Your task to perform on an android device: see creations saved in the google photos Image 0: 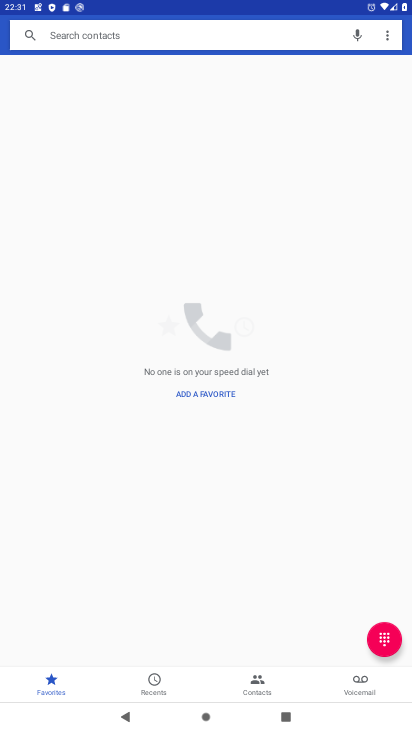
Step 0: press home button
Your task to perform on an android device: see creations saved in the google photos Image 1: 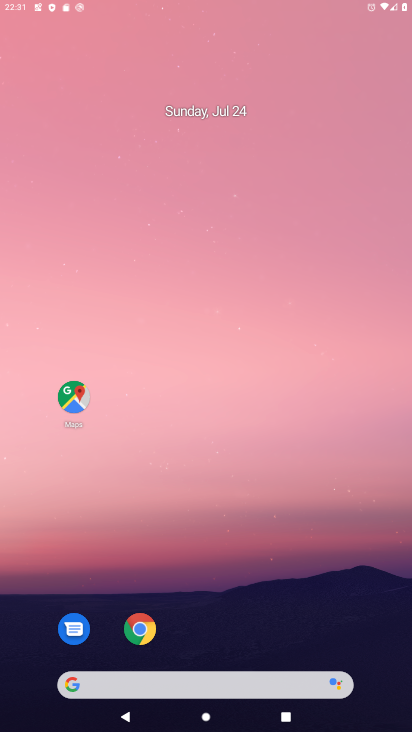
Step 1: drag from (244, 592) to (405, 94)
Your task to perform on an android device: see creations saved in the google photos Image 2: 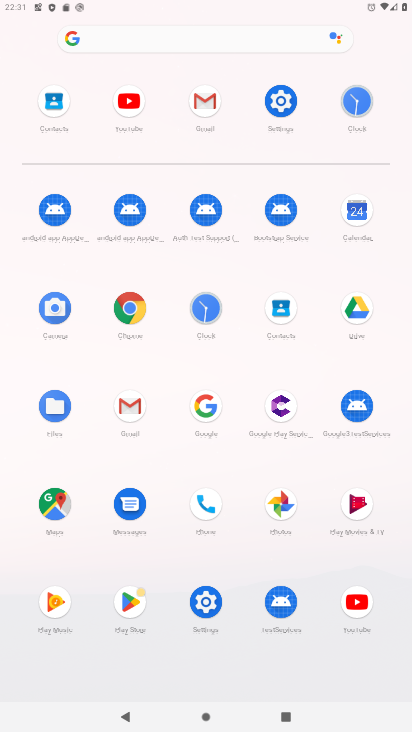
Step 2: click (281, 498)
Your task to perform on an android device: see creations saved in the google photos Image 3: 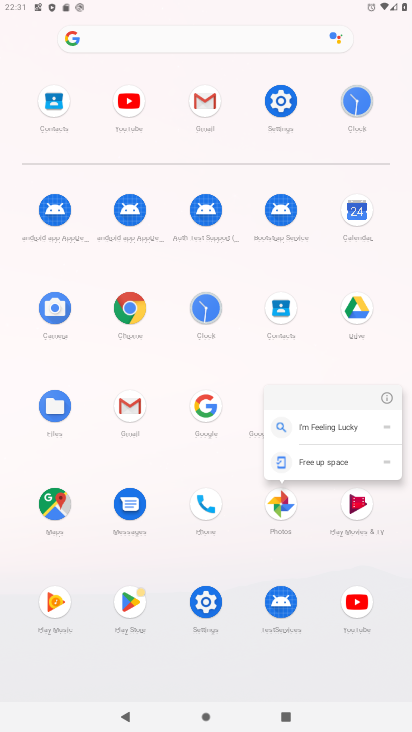
Step 3: click (388, 395)
Your task to perform on an android device: see creations saved in the google photos Image 4: 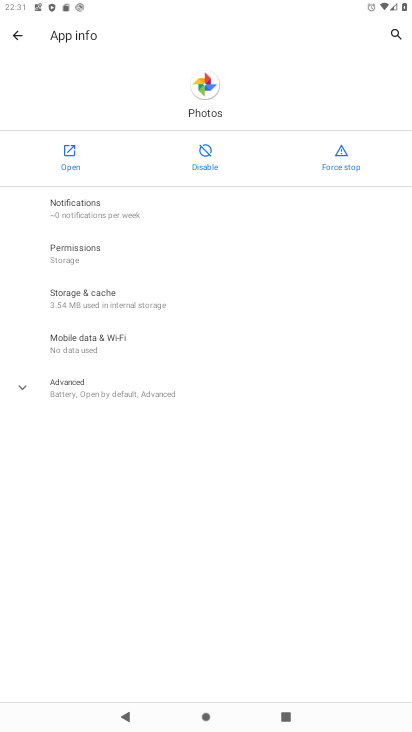
Step 4: click (71, 150)
Your task to perform on an android device: see creations saved in the google photos Image 5: 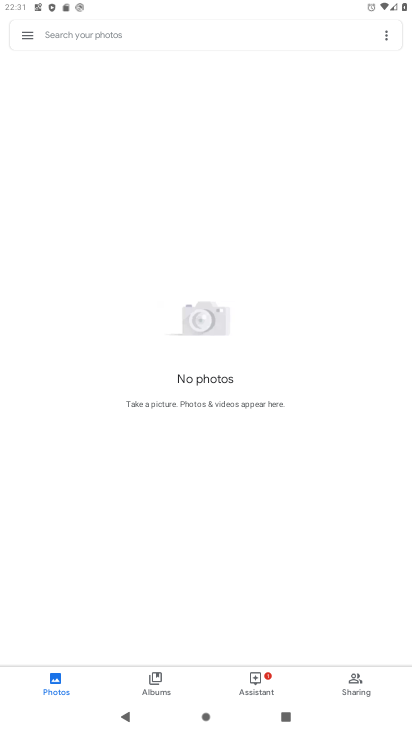
Step 5: click (151, 679)
Your task to perform on an android device: see creations saved in the google photos Image 6: 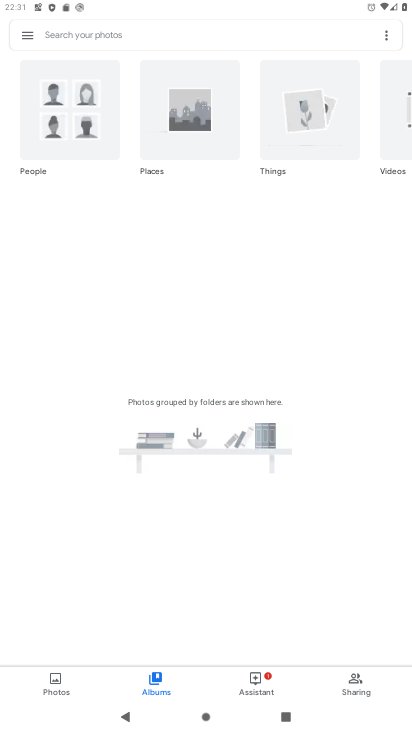
Step 6: click (121, 31)
Your task to perform on an android device: see creations saved in the google photos Image 7: 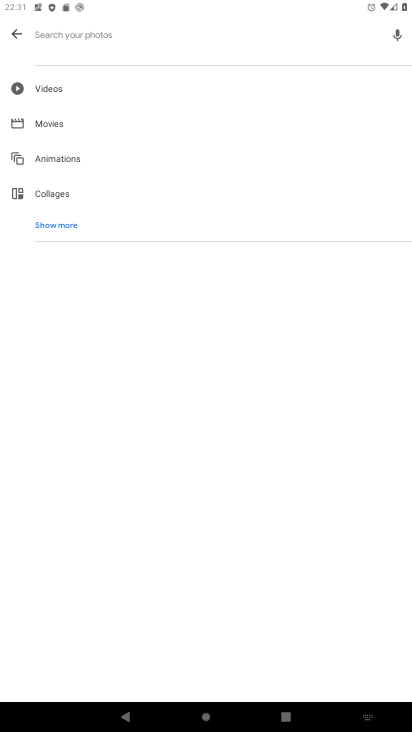
Step 7: click (57, 227)
Your task to perform on an android device: see creations saved in the google photos Image 8: 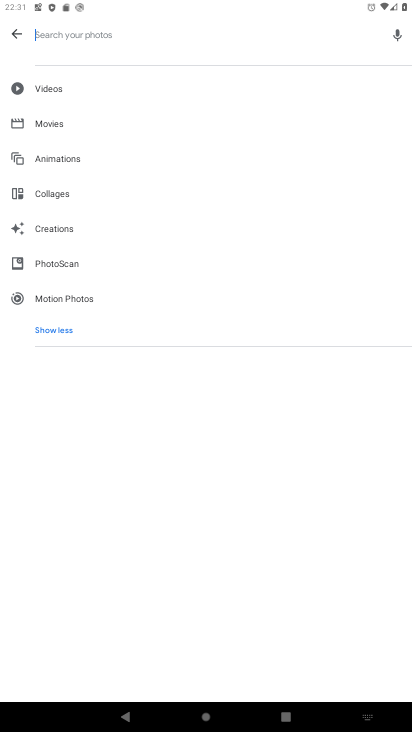
Step 8: click (50, 232)
Your task to perform on an android device: see creations saved in the google photos Image 9: 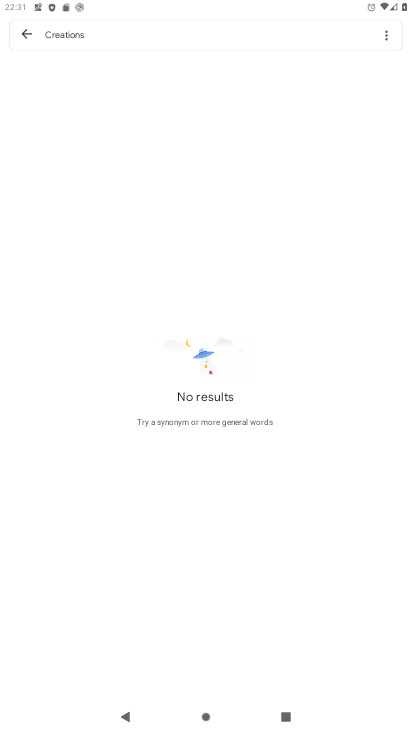
Step 9: task complete